Your task to perform on an android device: How much does the TCL TV cost? Image 0: 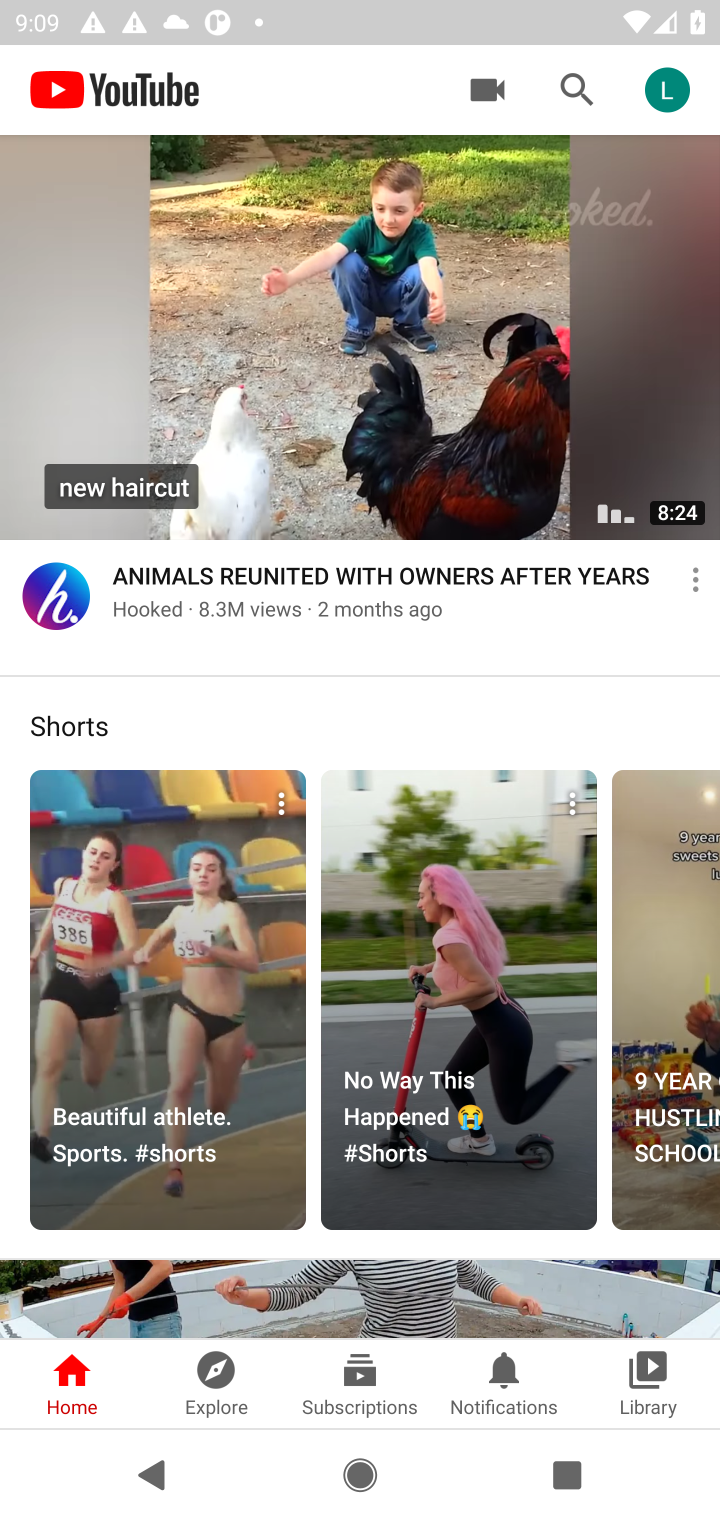
Step 0: press home button
Your task to perform on an android device: How much does the TCL TV cost? Image 1: 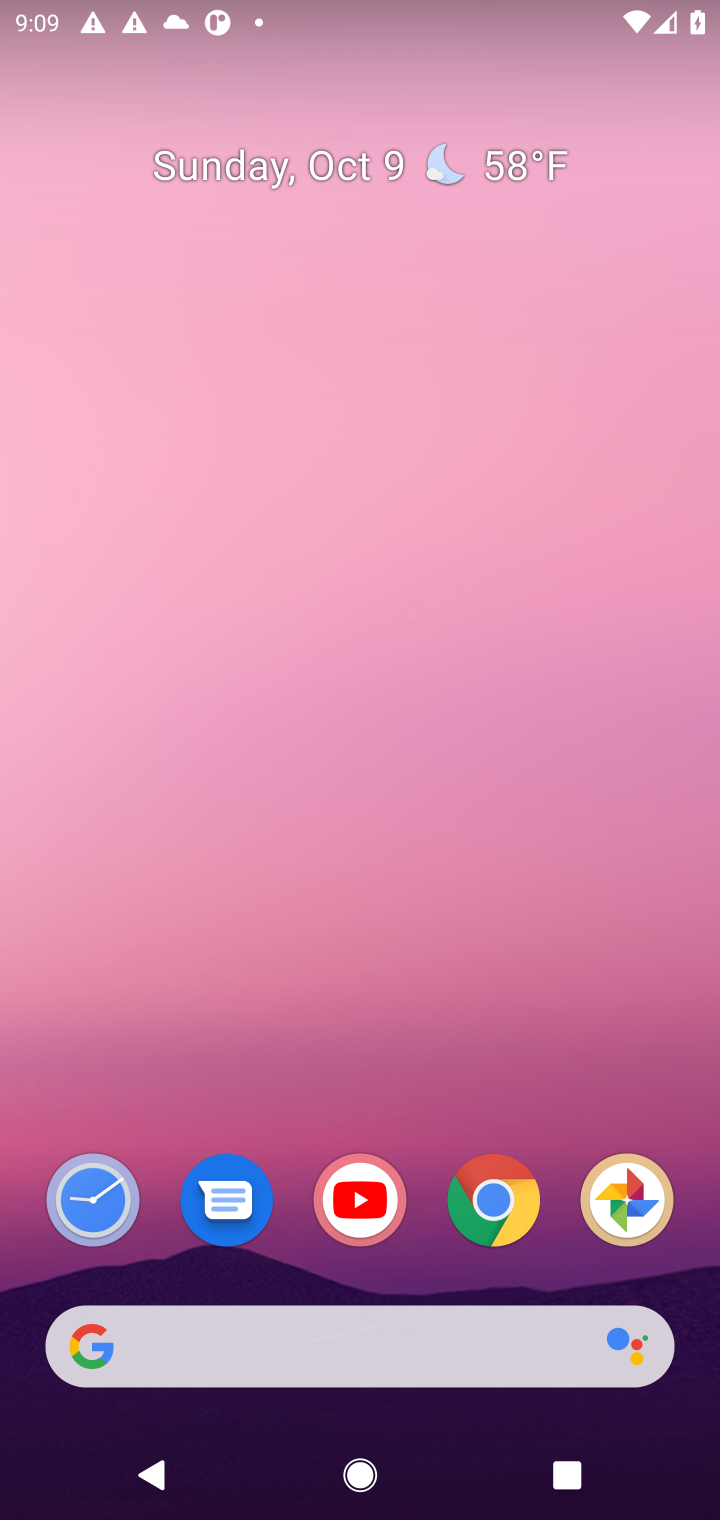
Step 1: drag from (414, 1077) to (569, 99)
Your task to perform on an android device: How much does the TCL TV cost? Image 2: 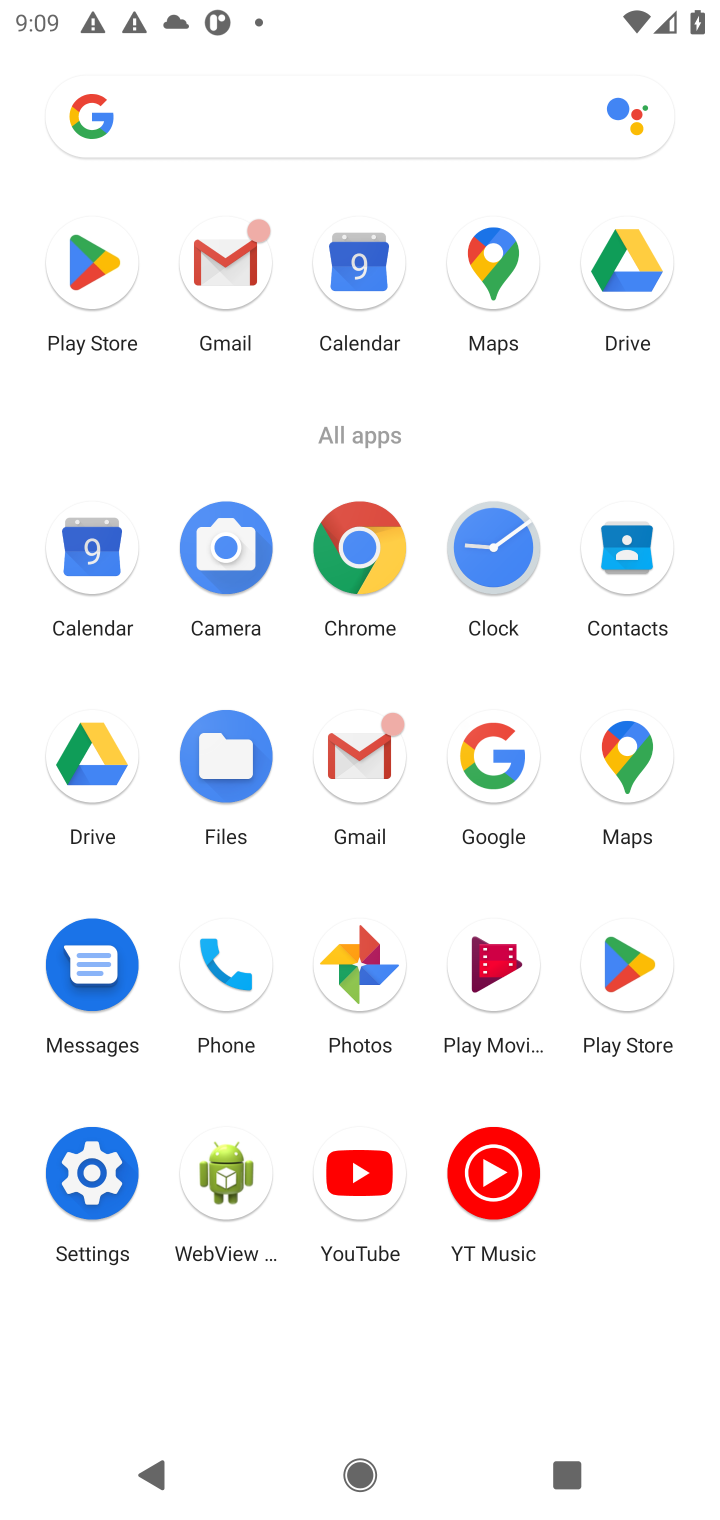
Step 2: click (350, 528)
Your task to perform on an android device: How much does the TCL TV cost? Image 3: 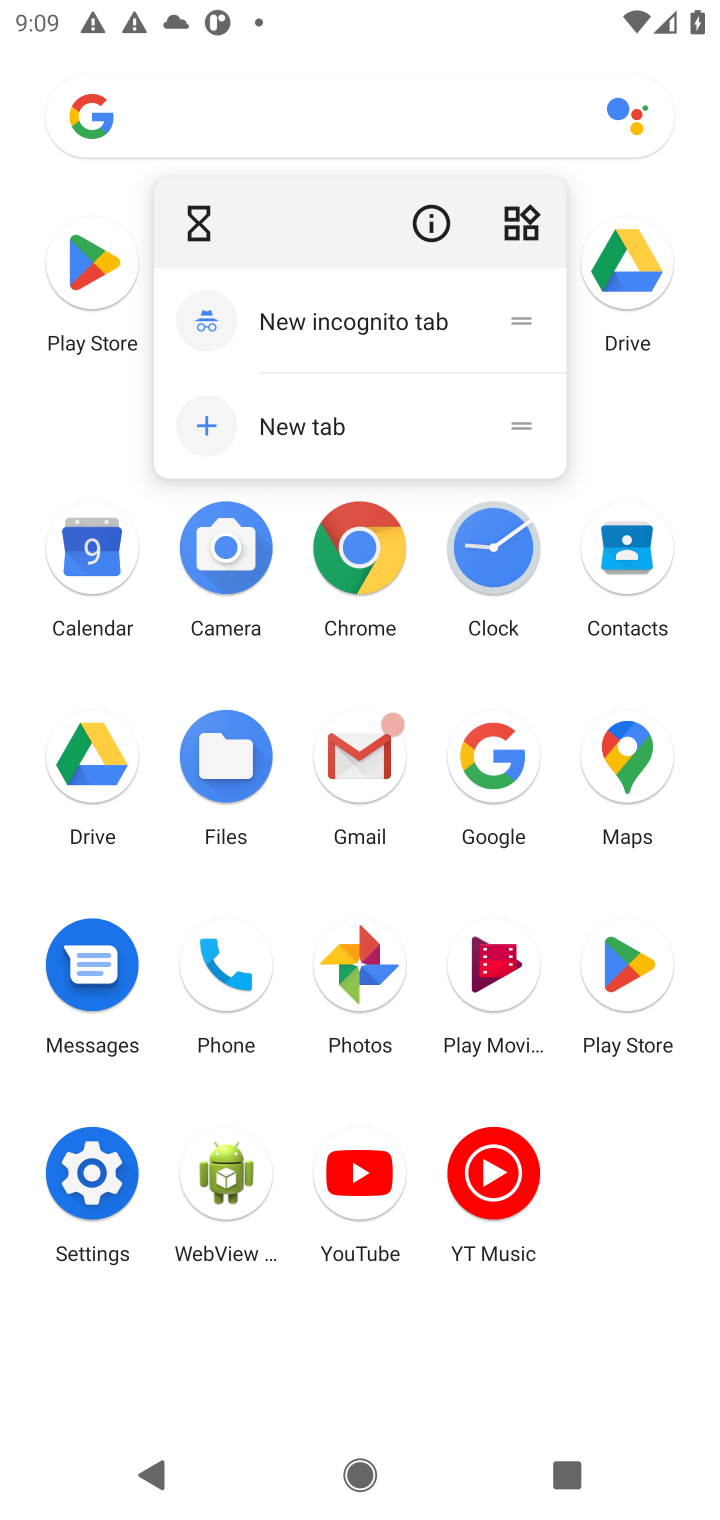
Step 3: click (364, 554)
Your task to perform on an android device: How much does the TCL TV cost? Image 4: 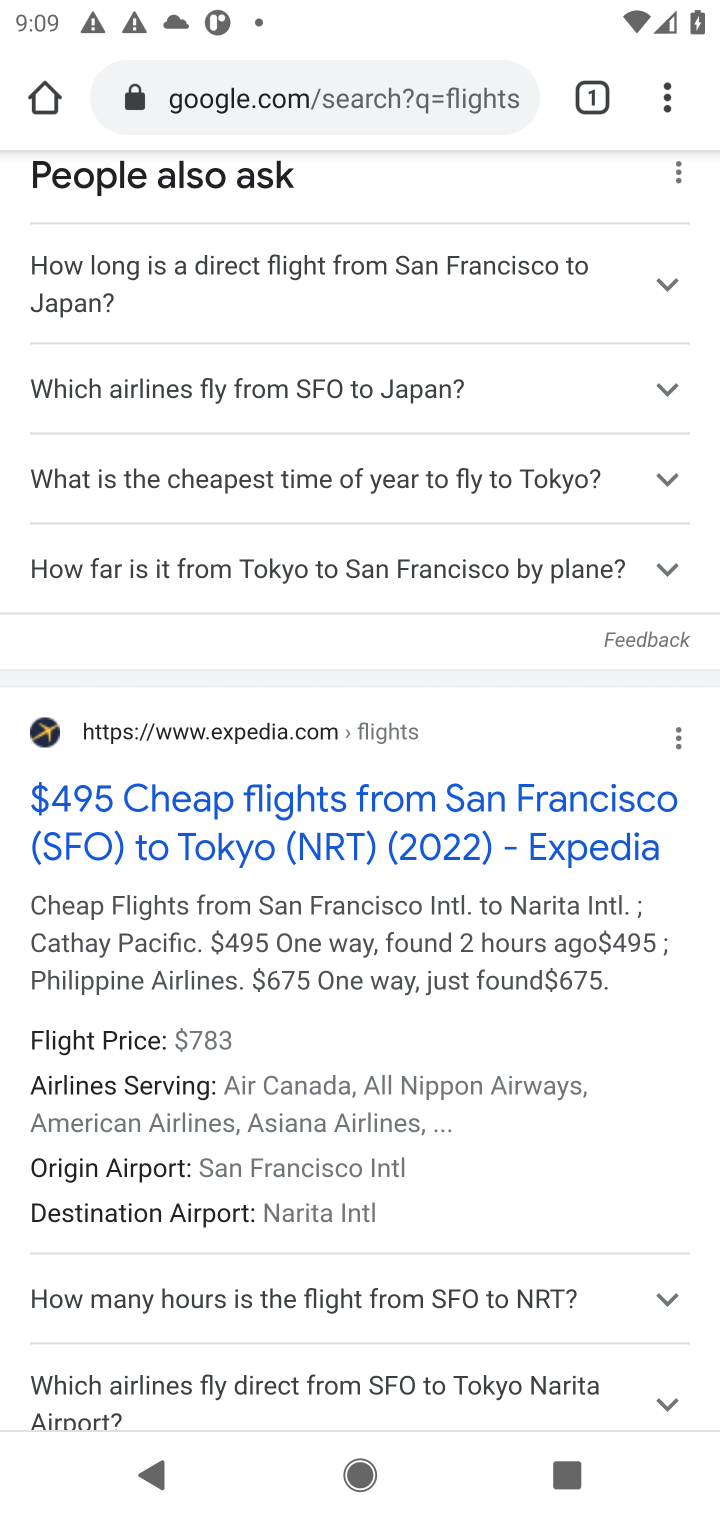
Step 4: click (330, 98)
Your task to perform on an android device: How much does the TCL TV cost? Image 5: 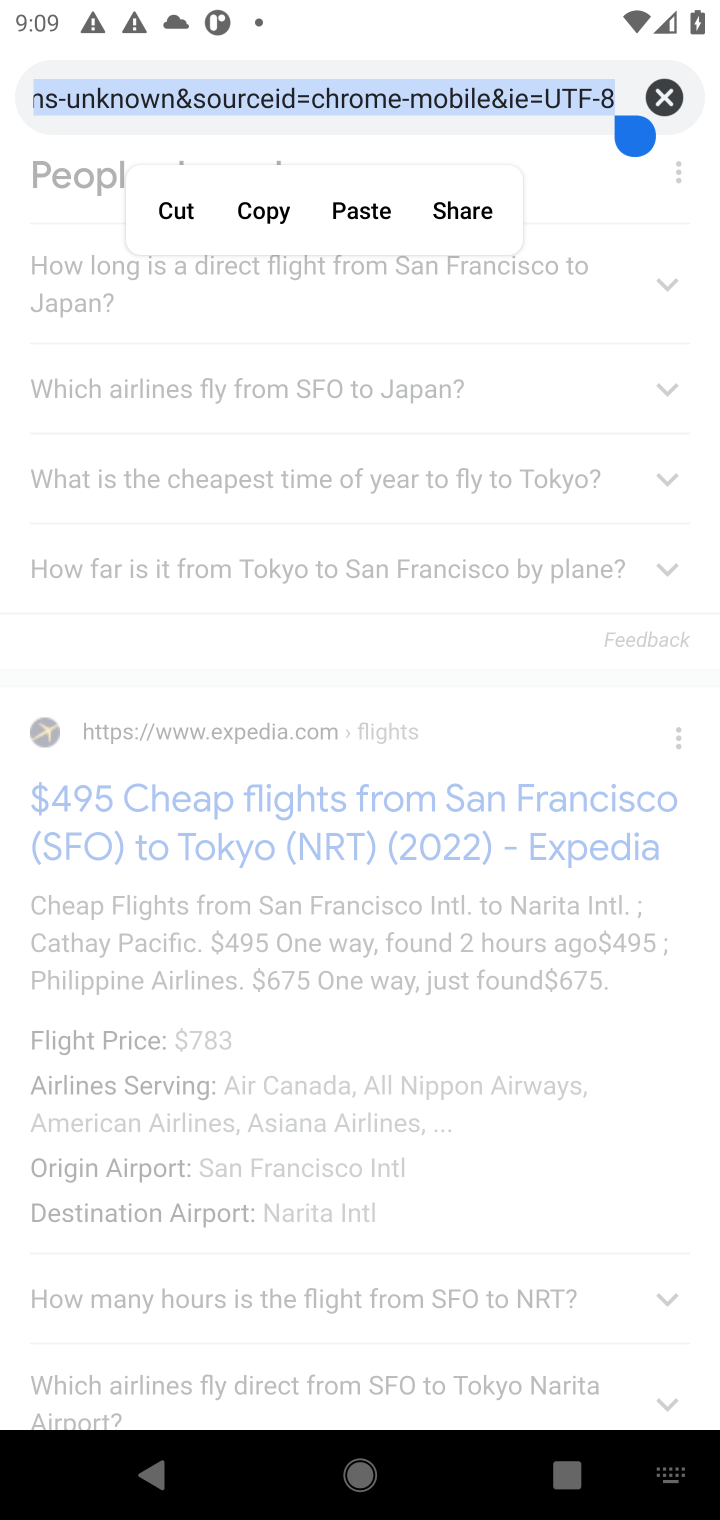
Step 5: click (675, 90)
Your task to perform on an android device: How much does the TCL TV cost? Image 6: 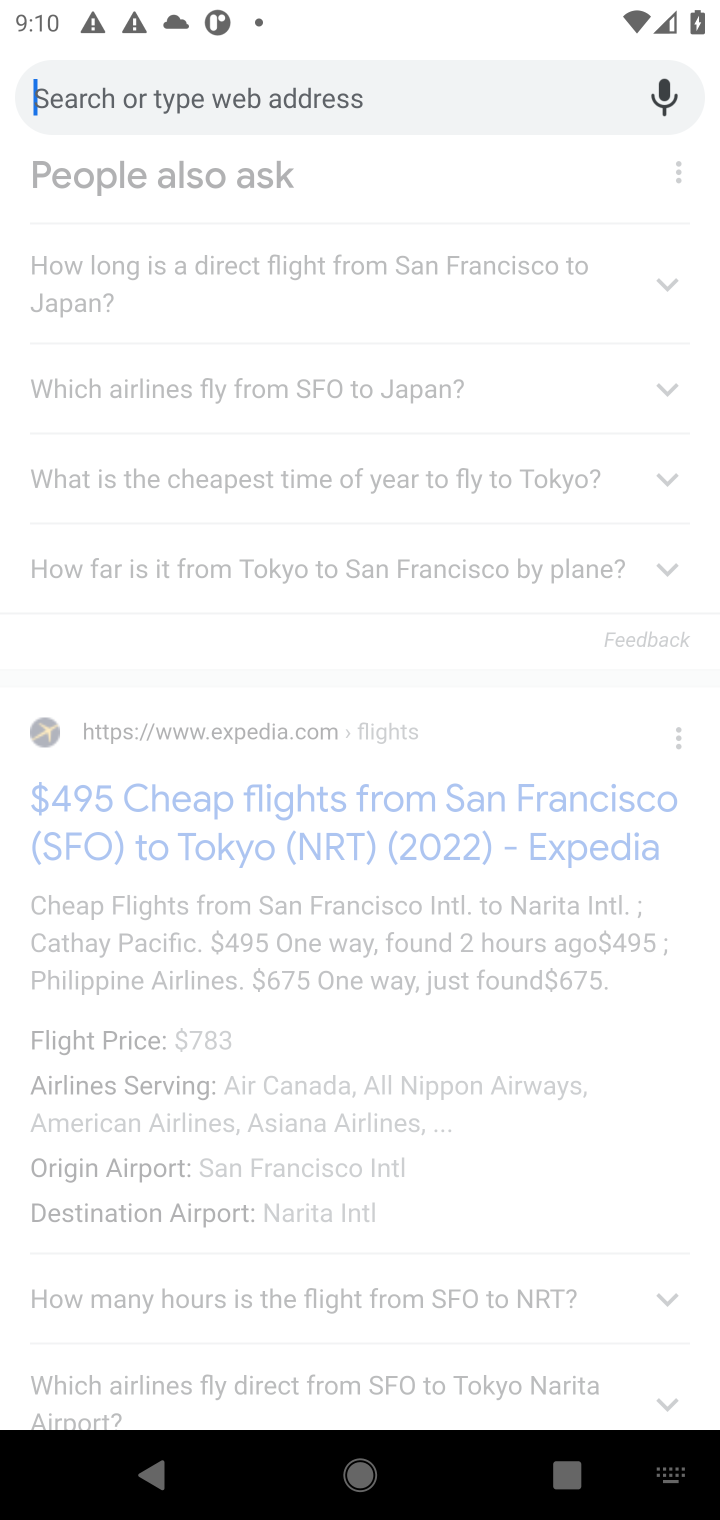
Step 6: type "How much does the TCL TV cost?"
Your task to perform on an android device: How much does the TCL TV cost? Image 7: 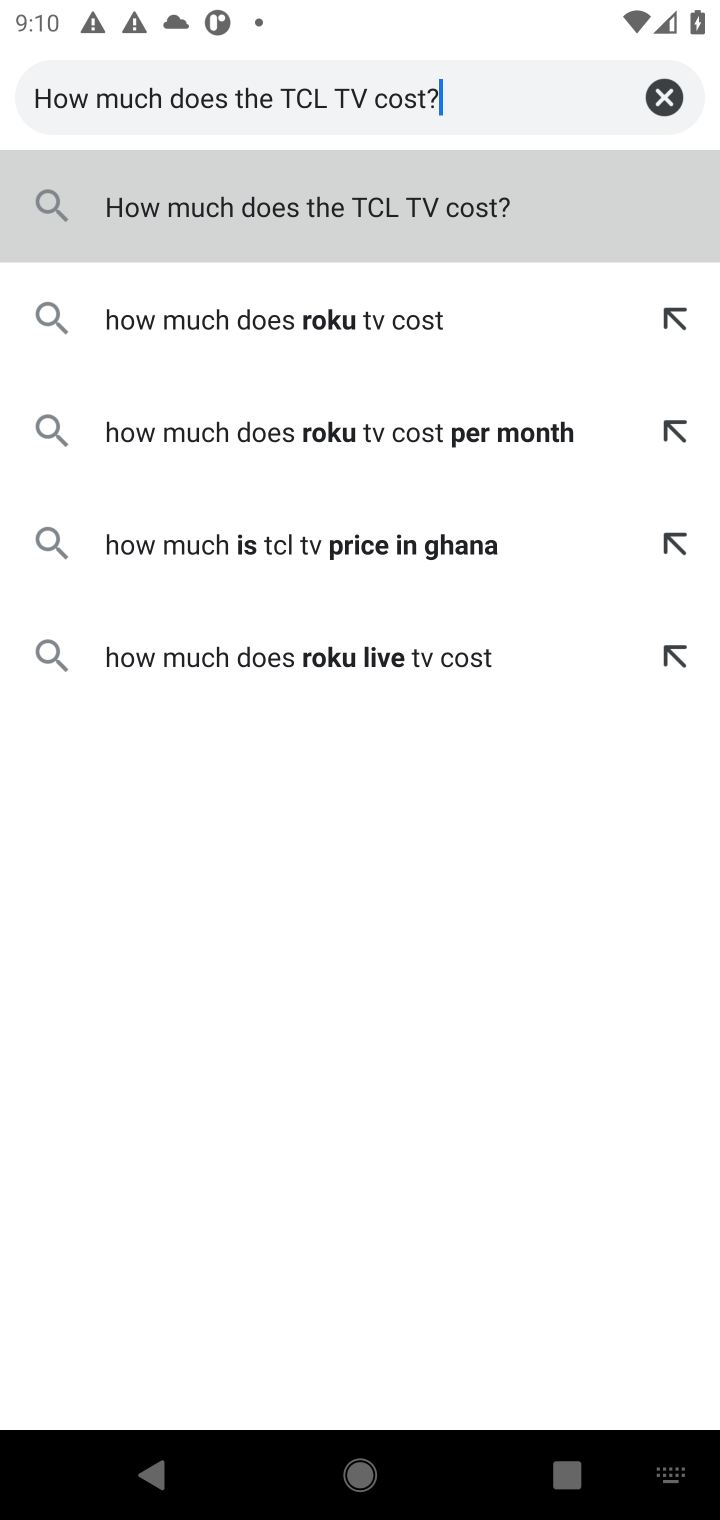
Step 7: click (376, 209)
Your task to perform on an android device: How much does the TCL TV cost? Image 8: 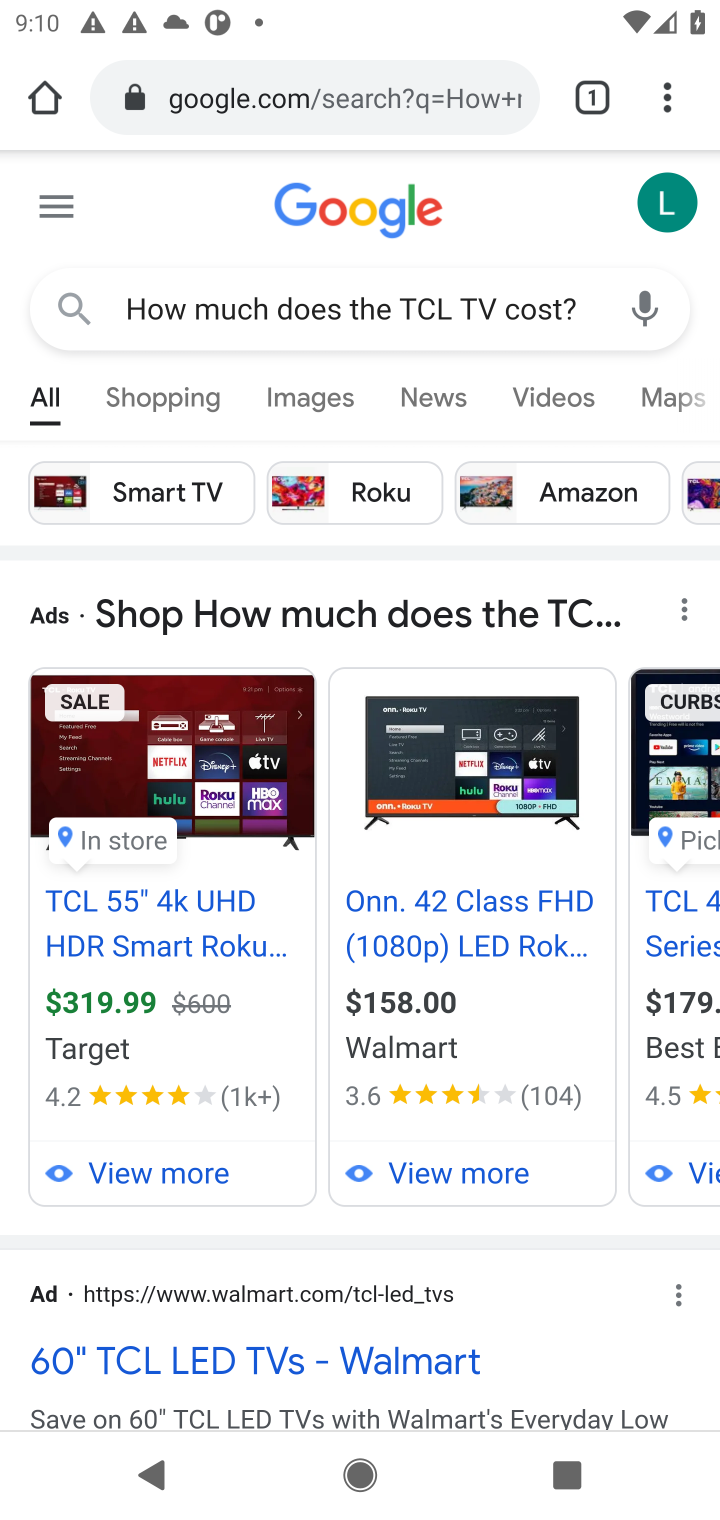
Step 8: task complete